Your task to perform on an android device: Open my contact list Image 0: 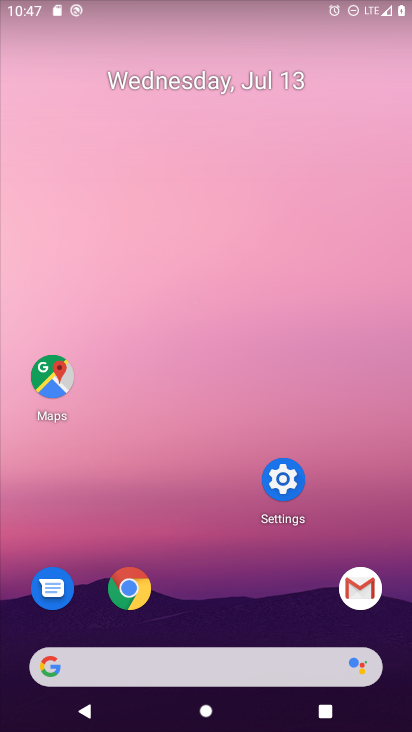
Step 0: press home button
Your task to perform on an android device: Open my contact list Image 1: 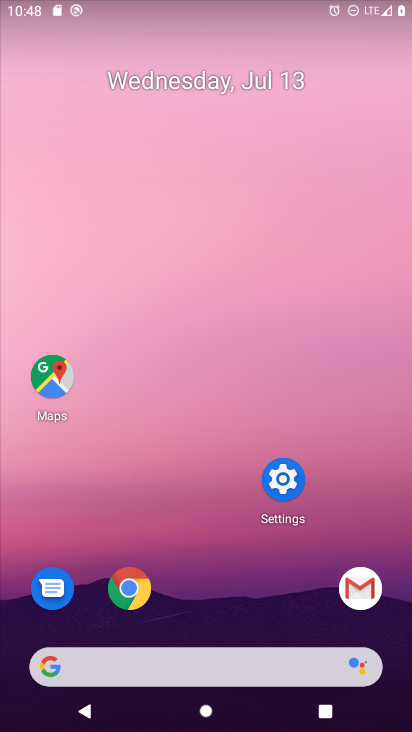
Step 1: drag from (253, 688) to (132, 197)
Your task to perform on an android device: Open my contact list Image 2: 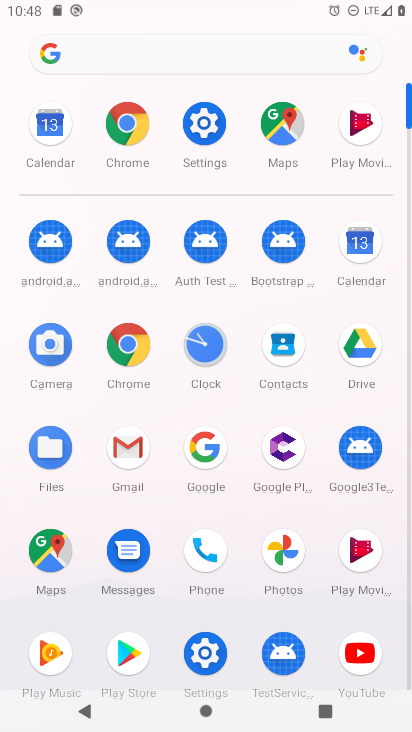
Step 2: click (217, 549)
Your task to perform on an android device: Open my contact list Image 3: 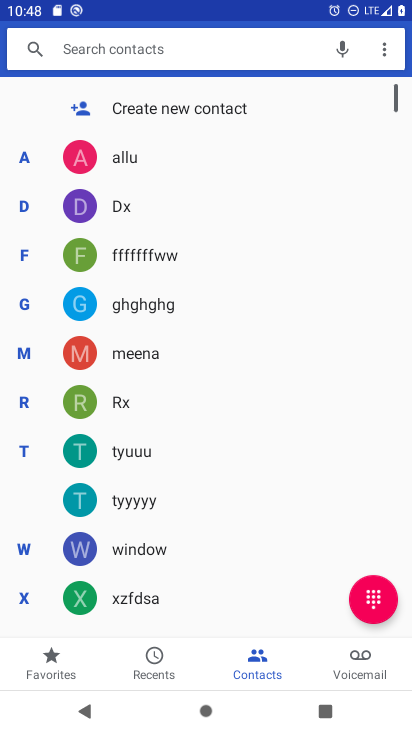
Step 3: click (190, 109)
Your task to perform on an android device: Open my contact list Image 4: 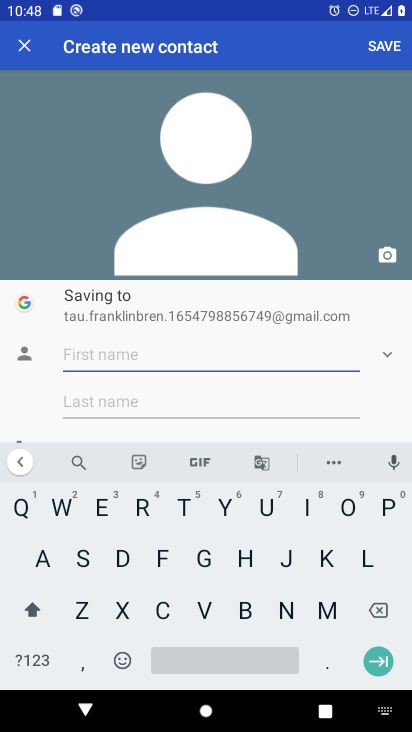
Step 4: click (148, 511)
Your task to perform on an android device: Open my contact list Image 5: 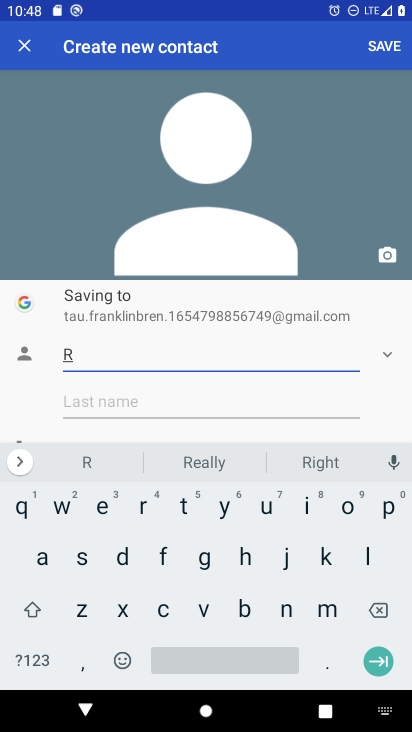
Step 5: click (61, 505)
Your task to perform on an android device: Open my contact list Image 6: 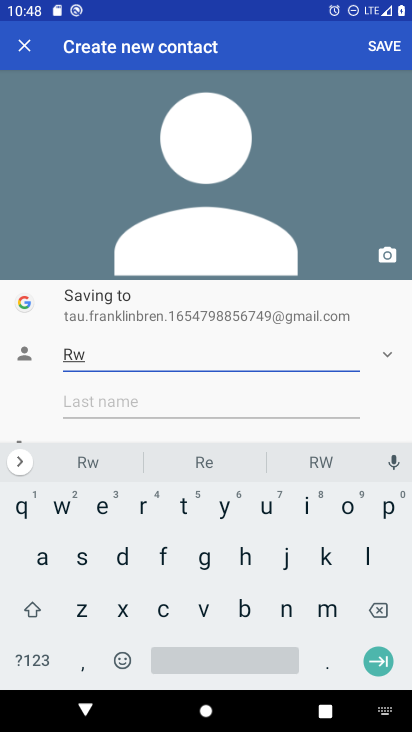
Step 6: click (114, 405)
Your task to perform on an android device: Open my contact list Image 7: 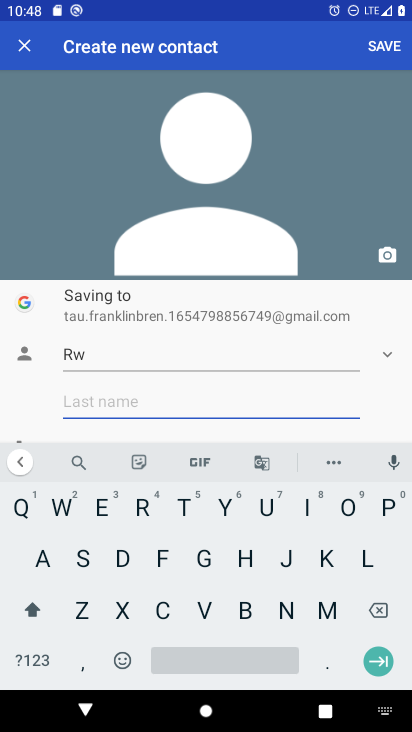
Step 7: click (110, 419)
Your task to perform on an android device: Open my contact list Image 8: 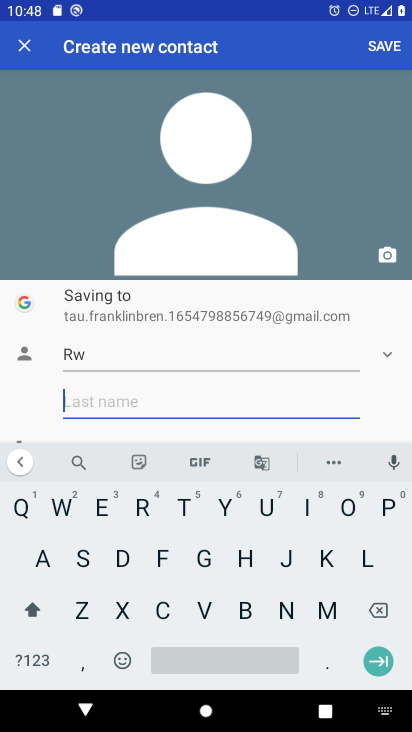
Step 8: drag from (109, 420) to (133, 296)
Your task to perform on an android device: Open my contact list Image 9: 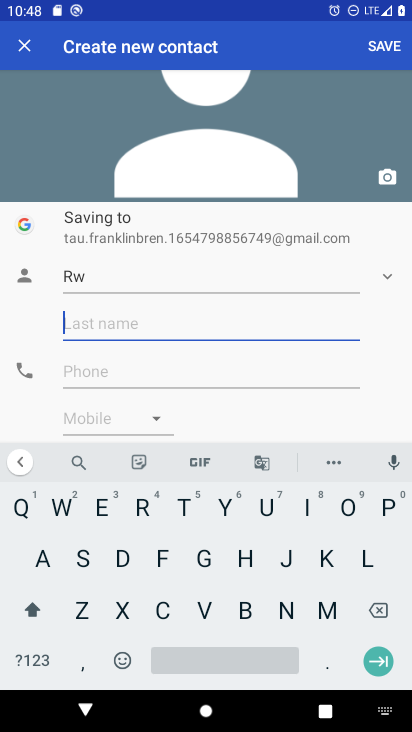
Step 9: click (94, 366)
Your task to perform on an android device: Open my contact list Image 10: 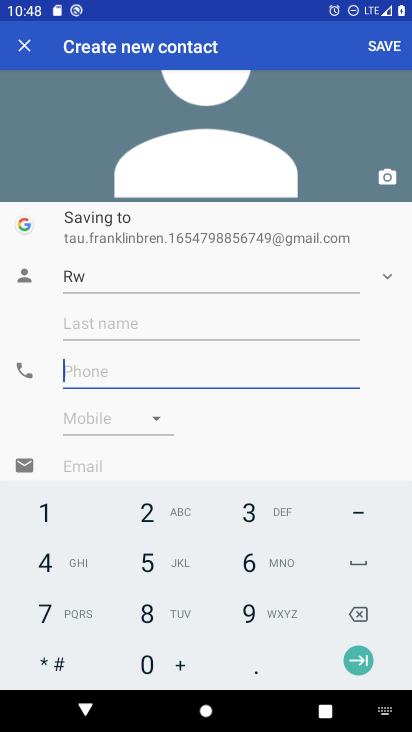
Step 10: click (153, 546)
Your task to perform on an android device: Open my contact list Image 11: 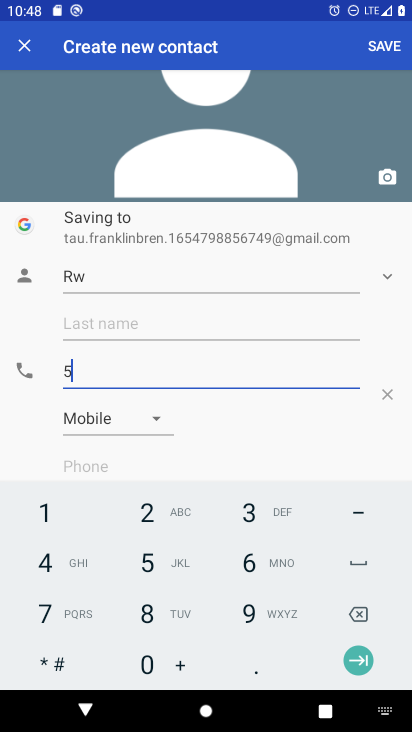
Step 11: click (162, 510)
Your task to perform on an android device: Open my contact list Image 12: 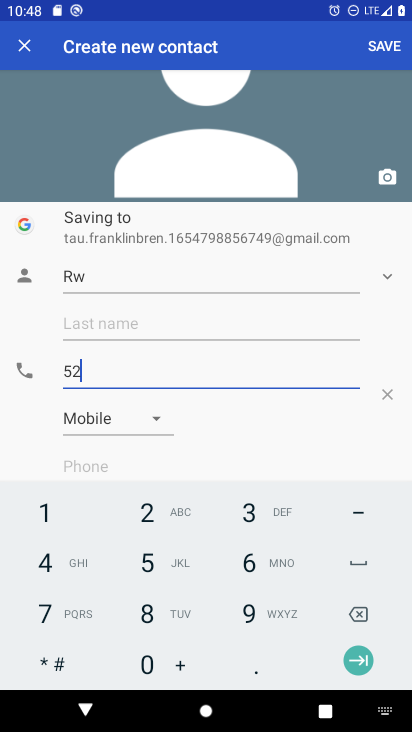
Step 12: click (262, 569)
Your task to perform on an android device: Open my contact list Image 13: 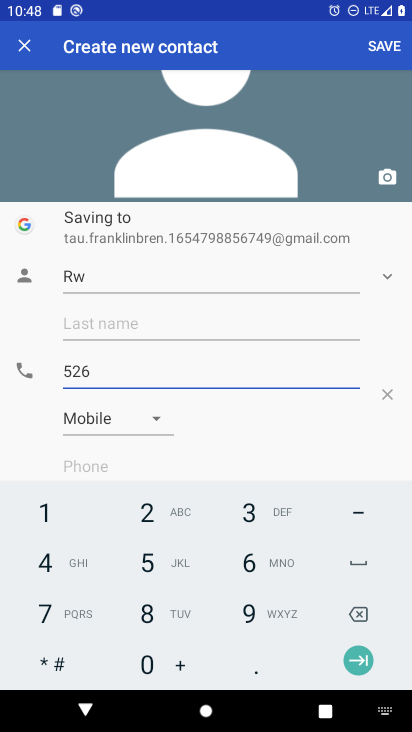
Step 13: drag from (172, 616) to (239, 611)
Your task to perform on an android device: Open my contact list Image 14: 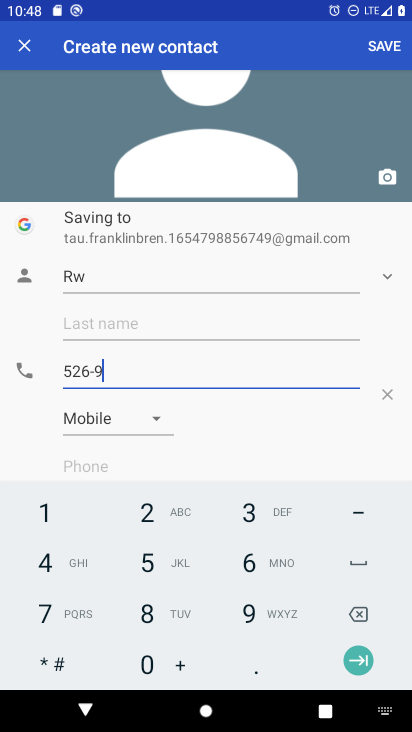
Step 14: click (239, 611)
Your task to perform on an android device: Open my contact list Image 15: 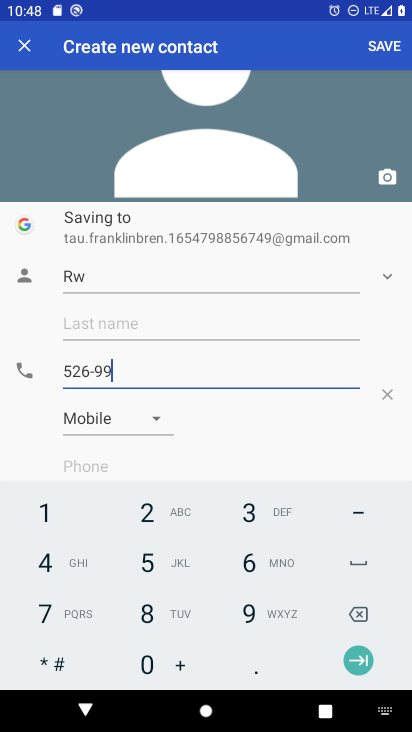
Step 15: click (152, 658)
Your task to perform on an android device: Open my contact list Image 16: 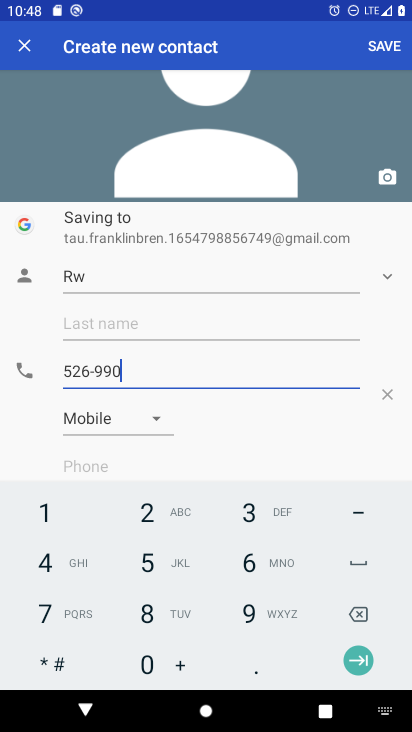
Step 16: click (163, 563)
Your task to perform on an android device: Open my contact list Image 17: 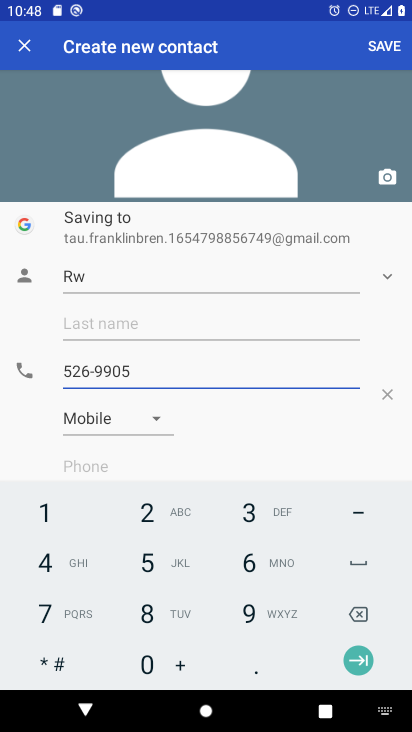
Step 17: click (376, 51)
Your task to perform on an android device: Open my contact list Image 18: 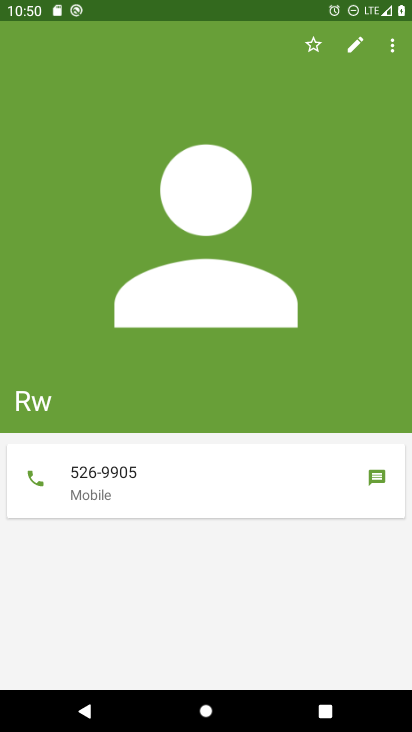
Step 18: task complete